Your task to perform on an android device: Check the news Image 0: 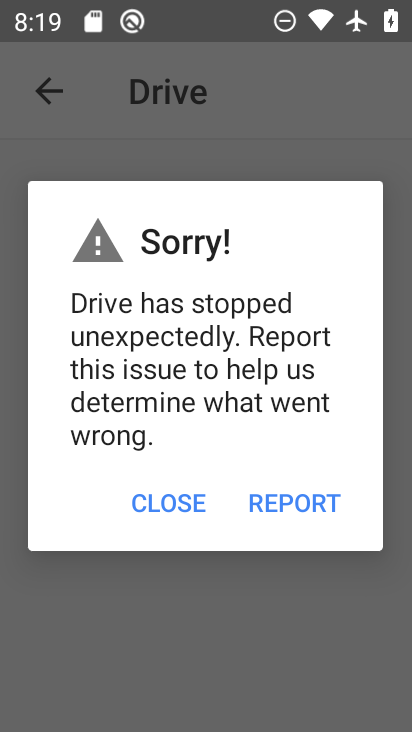
Step 0: press home button
Your task to perform on an android device: Check the news Image 1: 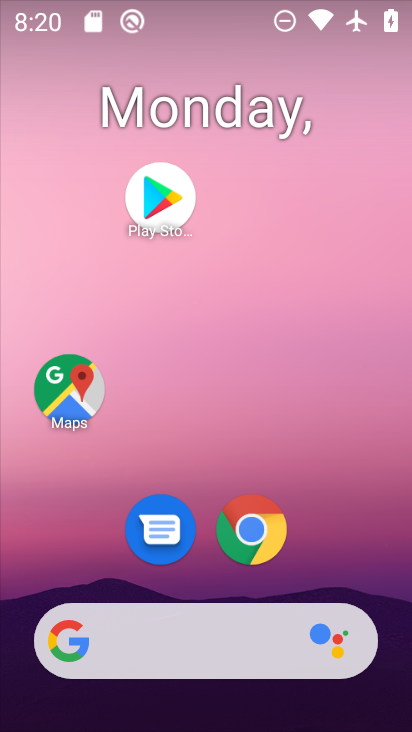
Step 1: task complete